Your task to perform on an android device: turn notification dots on Image 0: 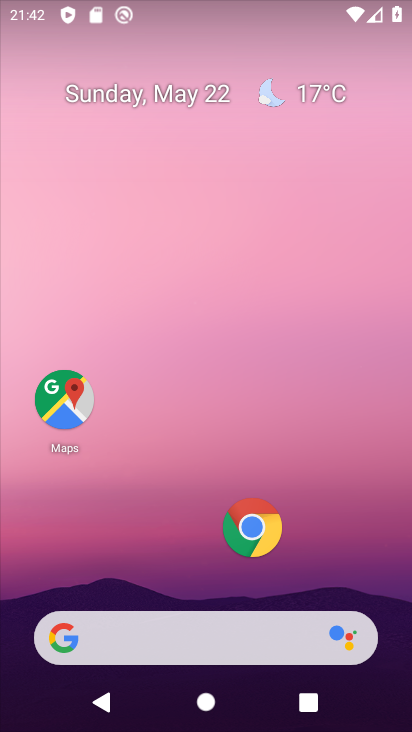
Step 0: drag from (178, 514) to (188, 24)
Your task to perform on an android device: turn notification dots on Image 1: 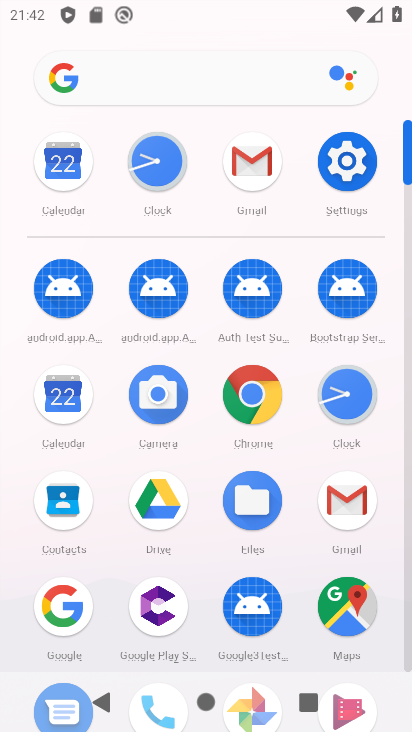
Step 1: click (348, 158)
Your task to perform on an android device: turn notification dots on Image 2: 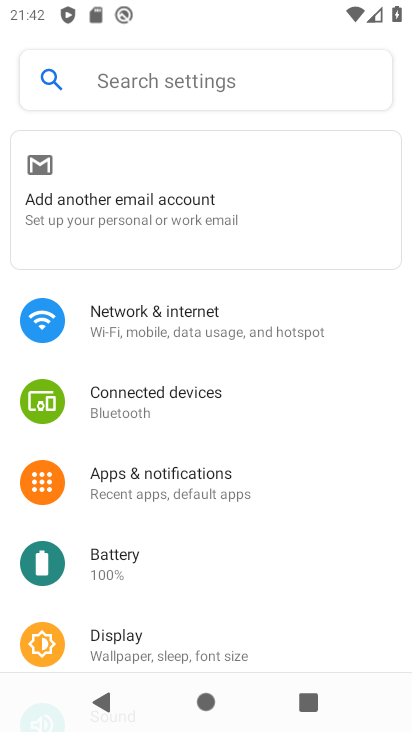
Step 2: click (168, 474)
Your task to perform on an android device: turn notification dots on Image 3: 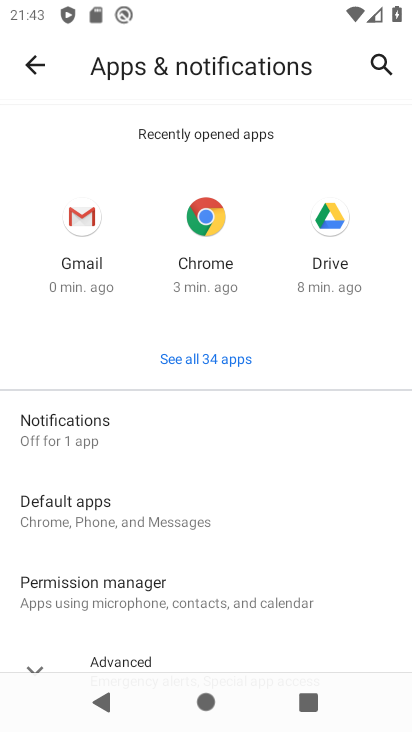
Step 3: click (79, 411)
Your task to perform on an android device: turn notification dots on Image 4: 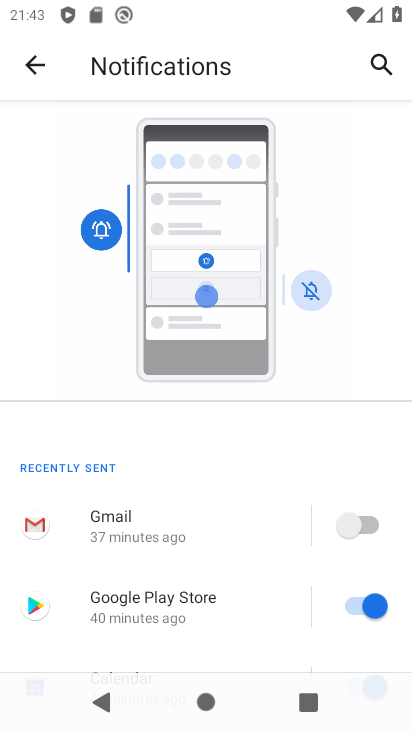
Step 4: drag from (207, 540) to (96, 46)
Your task to perform on an android device: turn notification dots on Image 5: 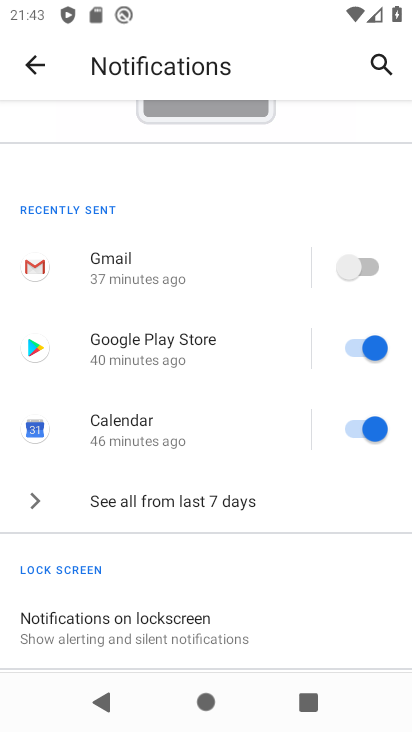
Step 5: drag from (291, 594) to (187, 91)
Your task to perform on an android device: turn notification dots on Image 6: 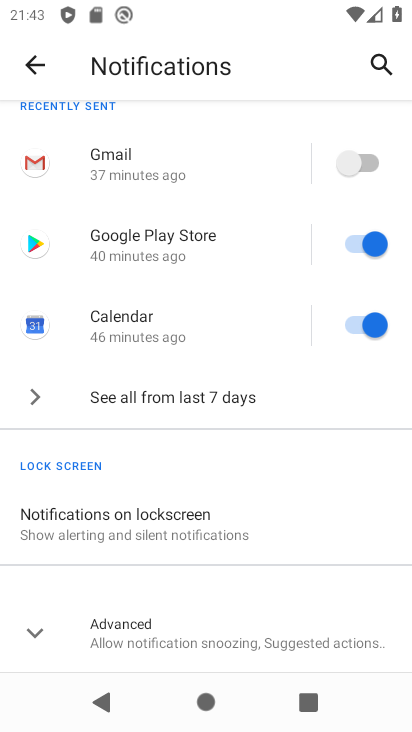
Step 6: click (54, 631)
Your task to perform on an android device: turn notification dots on Image 7: 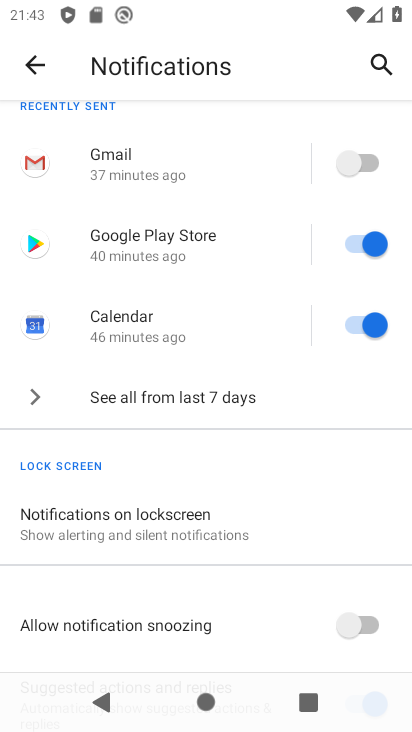
Step 7: drag from (225, 574) to (166, 289)
Your task to perform on an android device: turn notification dots on Image 8: 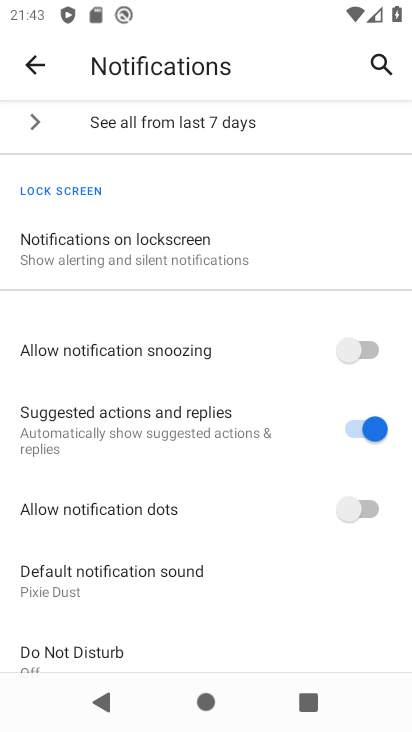
Step 8: click (348, 504)
Your task to perform on an android device: turn notification dots on Image 9: 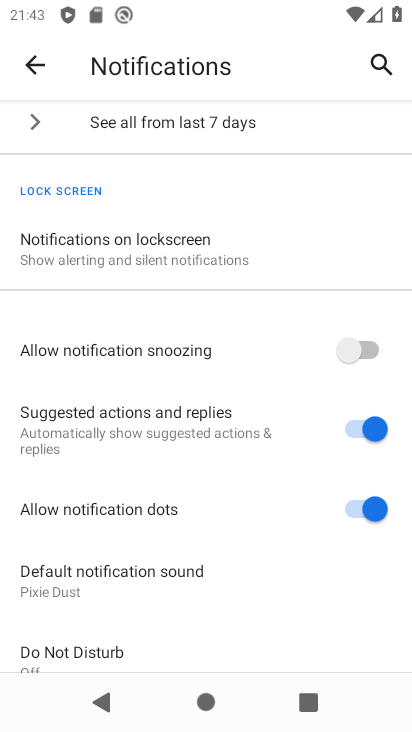
Step 9: task complete